Your task to perform on an android device: Open CNN.com Image 0: 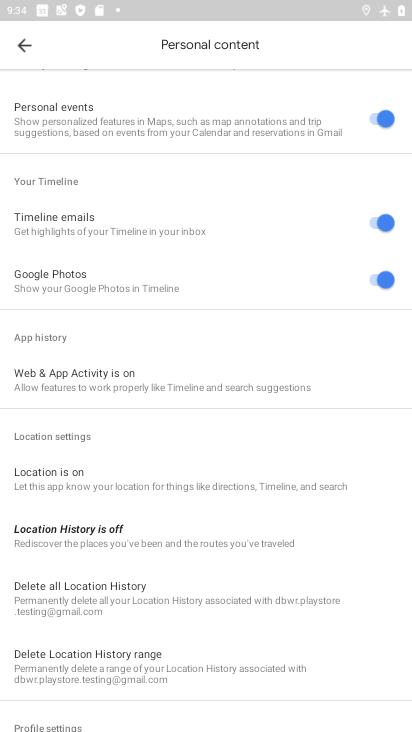
Step 0: press home button
Your task to perform on an android device: Open CNN.com Image 1: 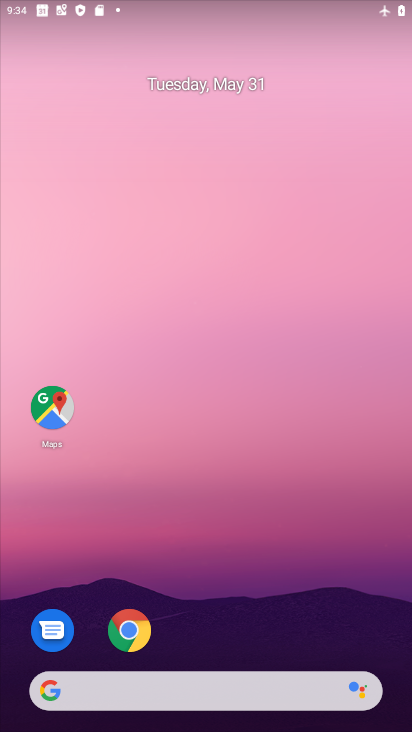
Step 1: click (124, 618)
Your task to perform on an android device: Open CNN.com Image 2: 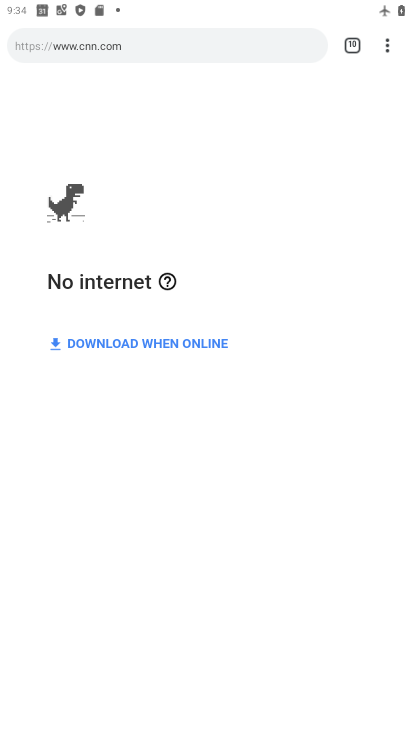
Step 2: click (381, 44)
Your task to perform on an android device: Open CNN.com Image 3: 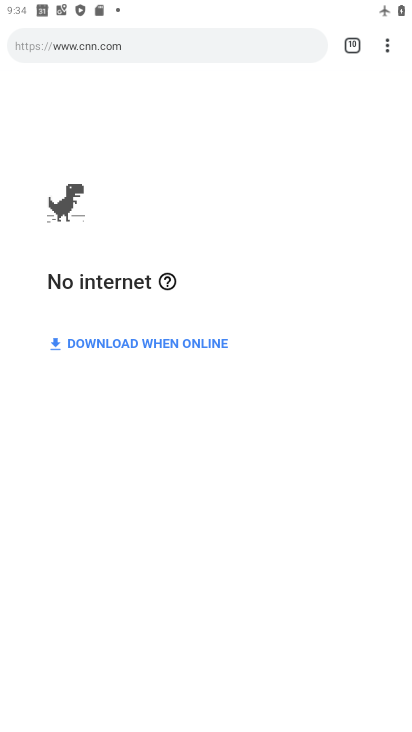
Step 3: click (380, 43)
Your task to perform on an android device: Open CNN.com Image 4: 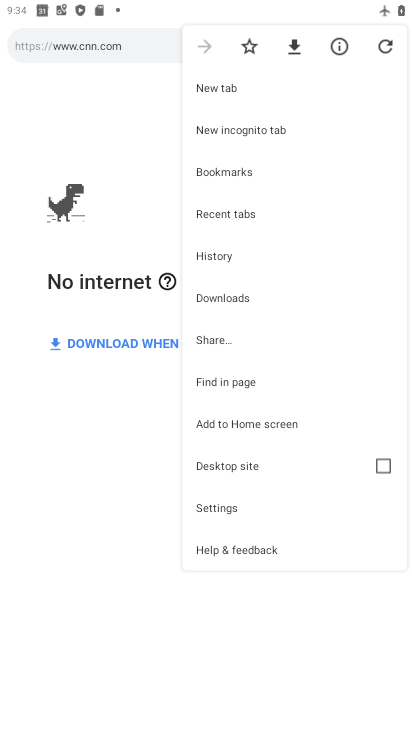
Step 4: click (219, 86)
Your task to perform on an android device: Open CNN.com Image 5: 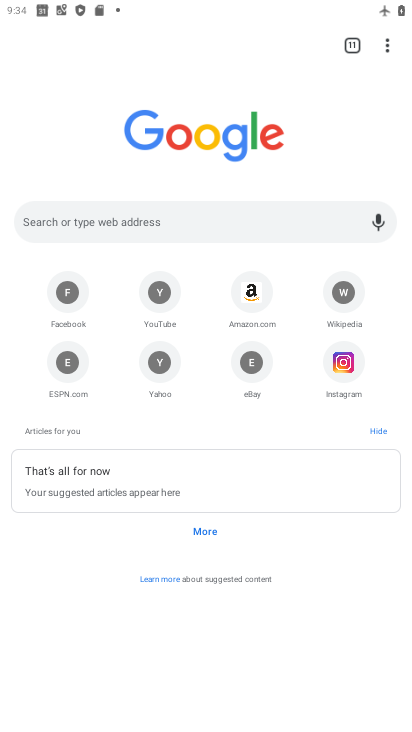
Step 5: click (272, 222)
Your task to perform on an android device: Open CNN.com Image 6: 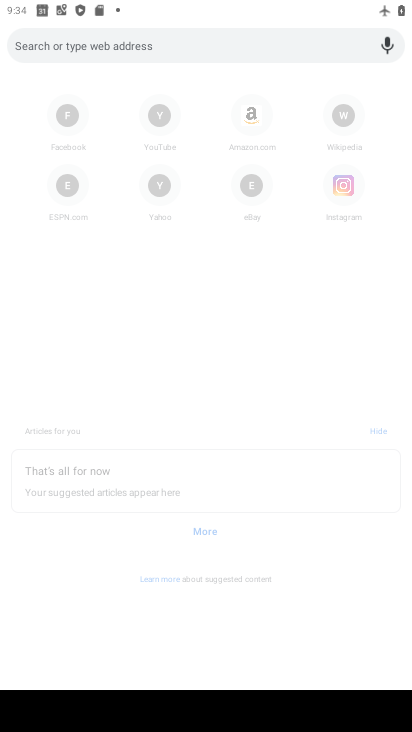
Step 6: type "CNN.com"
Your task to perform on an android device: Open CNN.com Image 7: 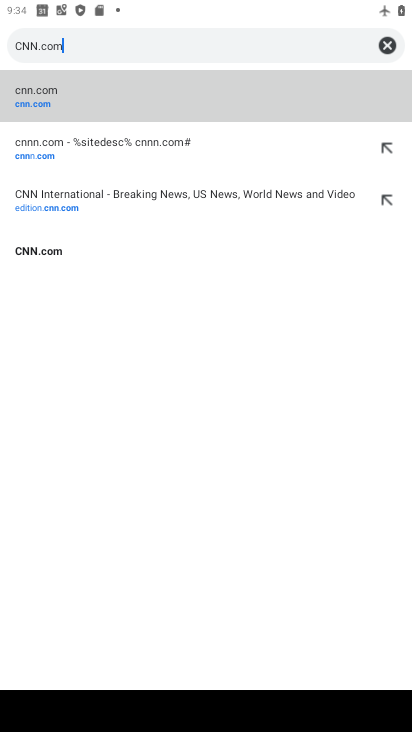
Step 7: click (19, 92)
Your task to perform on an android device: Open CNN.com Image 8: 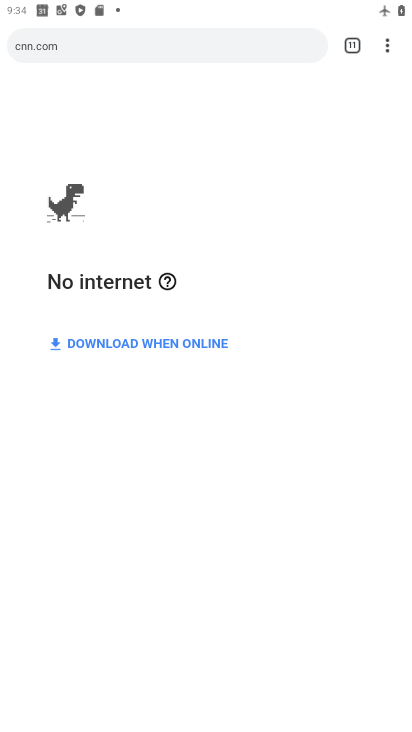
Step 8: task complete